Your task to perform on an android device: allow notifications from all sites in the chrome app Image 0: 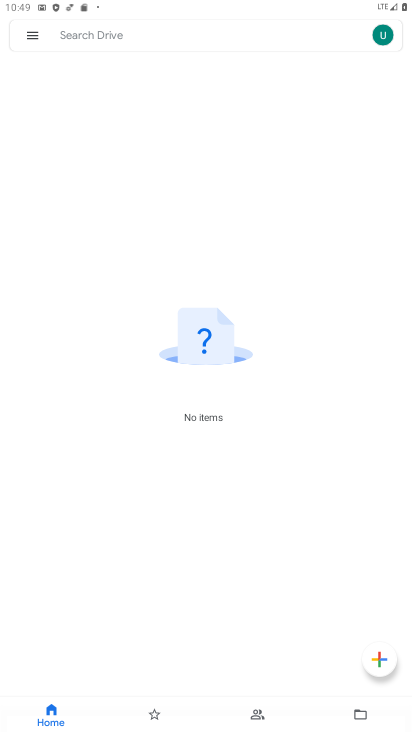
Step 0: press home button
Your task to perform on an android device: allow notifications from all sites in the chrome app Image 1: 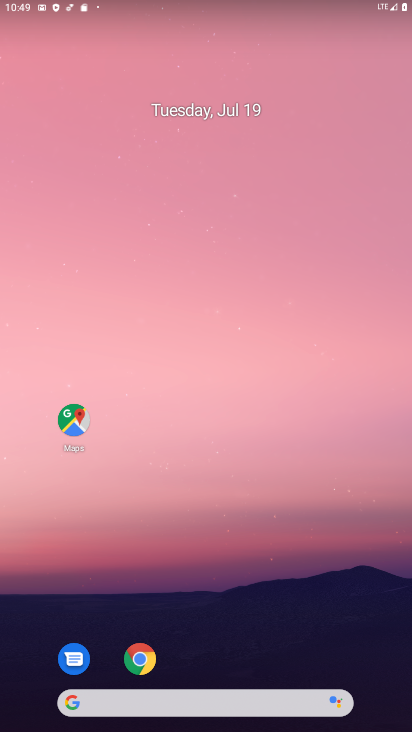
Step 1: click (151, 652)
Your task to perform on an android device: allow notifications from all sites in the chrome app Image 2: 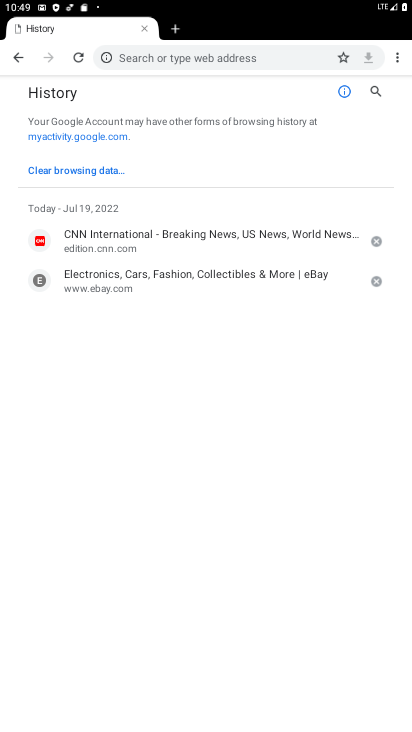
Step 2: click (393, 55)
Your task to perform on an android device: allow notifications from all sites in the chrome app Image 3: 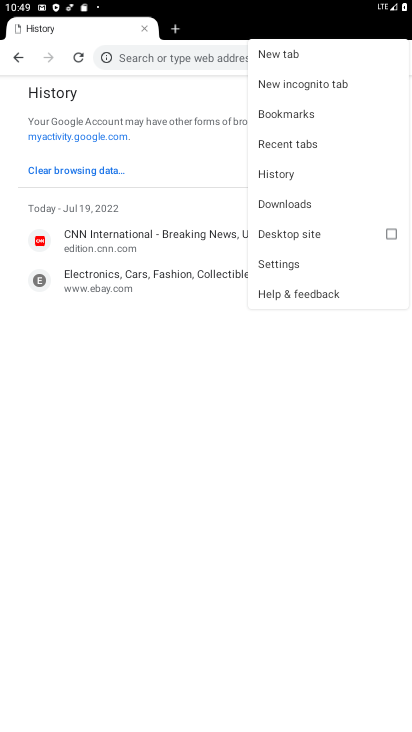
Step 3: click (289, 265)
Your task to perform on an android device: allow notifications from all sites in the chrome app Image 4: 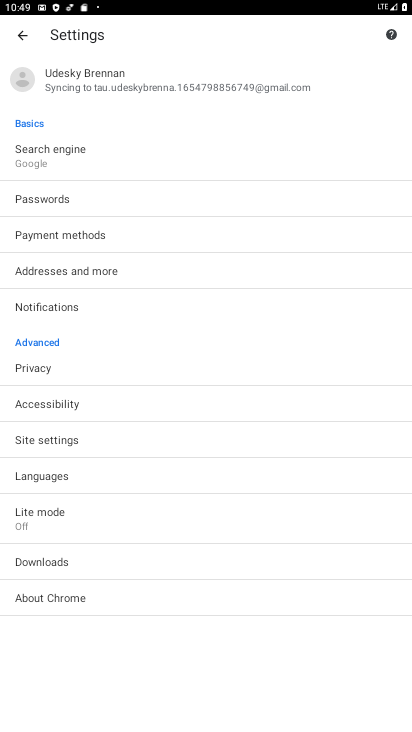
Step 4: task complete